Your task to perform on an android device: Open ESPN.com Image 0: 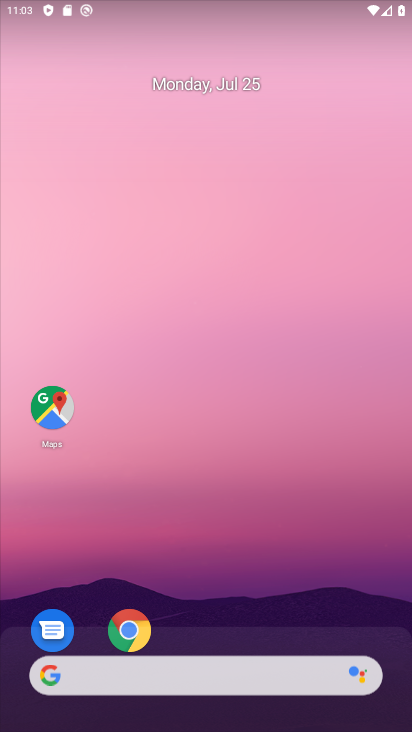
Step 0: click (118, 632)
Your task to perform on an android device: Open ESPN.com Image 1: 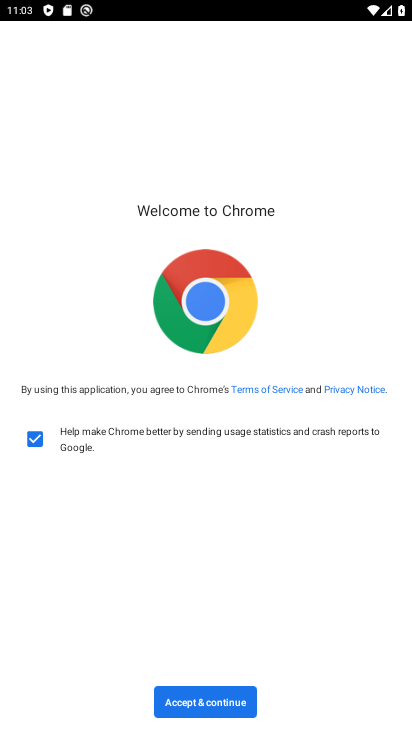
Step 1: click (174, 696)
Your task to perform on an android device: Open ESPN.com Image 2: 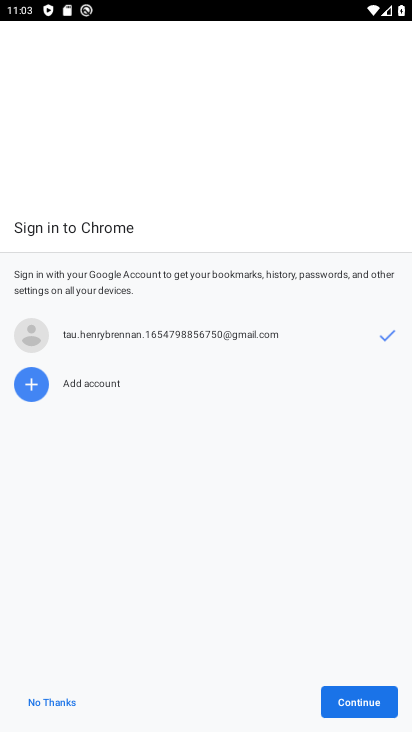
Step 2: click (368, 713)
Your task to perform on an android device: Open ESPN.com Image 3: 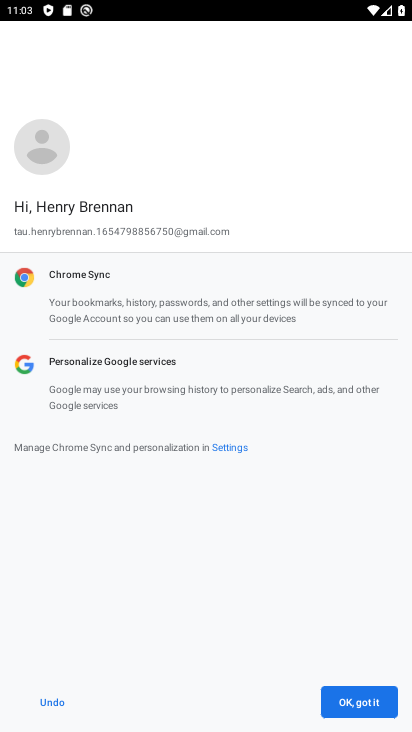
Step 3: click (359, 702)
Your task to perform on an android device: Open ESPN.com Image 4: 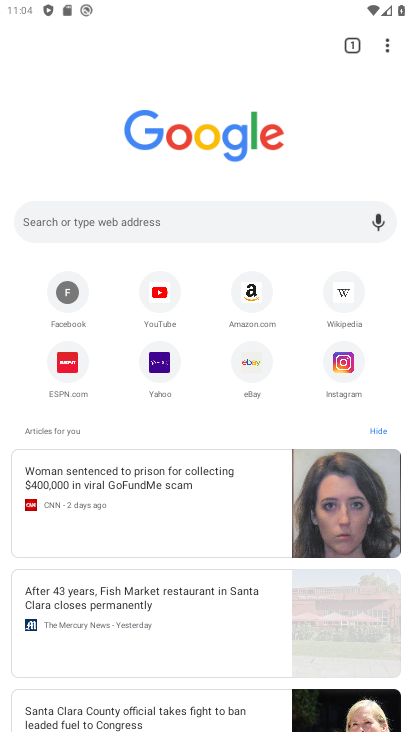
Step 4: click (61, 356)
Your task to perform on an android device: Open ESPN.com Image 5: 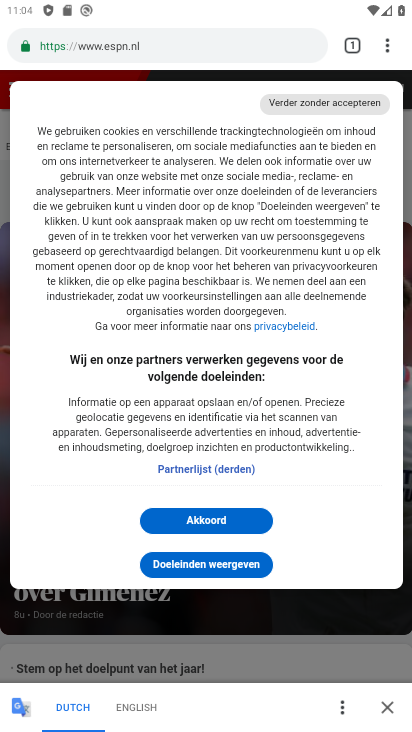
Step 5: task complete